Your task to perform on an android device: Open the stopwatch Image 0: 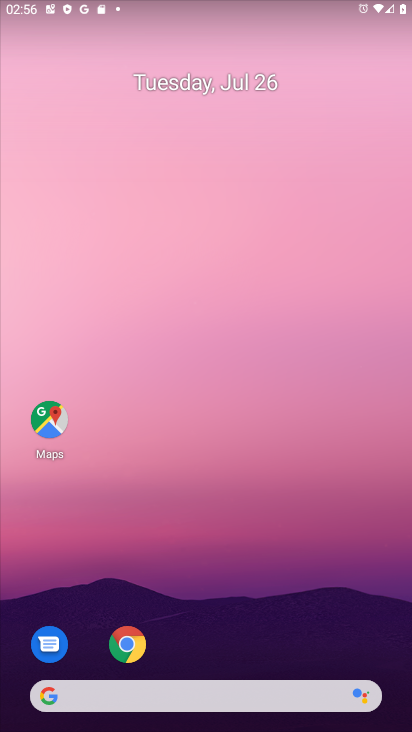
Step 0: drag from (172, 650) to (142, 110)
Your task to perform on an android device: Open the stopwatch Image 1: 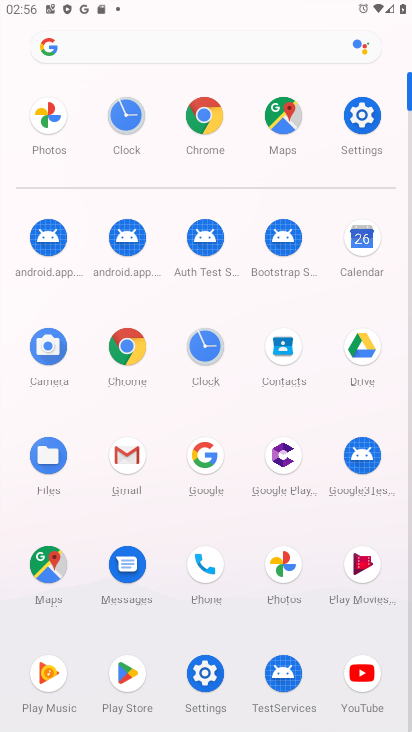
Step 1: click (208, 342)
Your task to perform on an android device: Open the stopwatch Image 2: 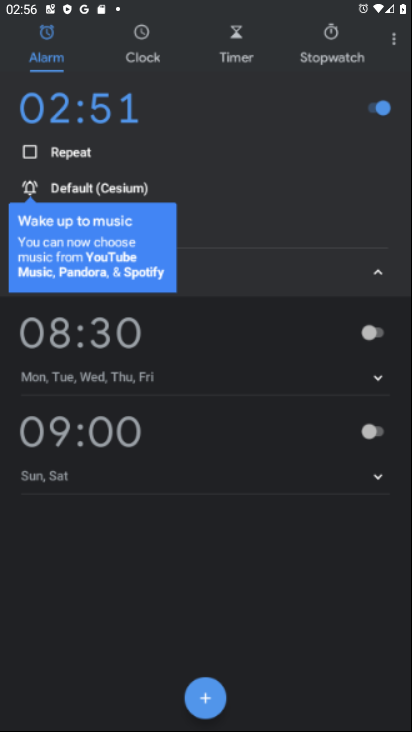
Step 2: click (320, 44)
Your task to perform on an android device: Open the stopwatch Image 3: 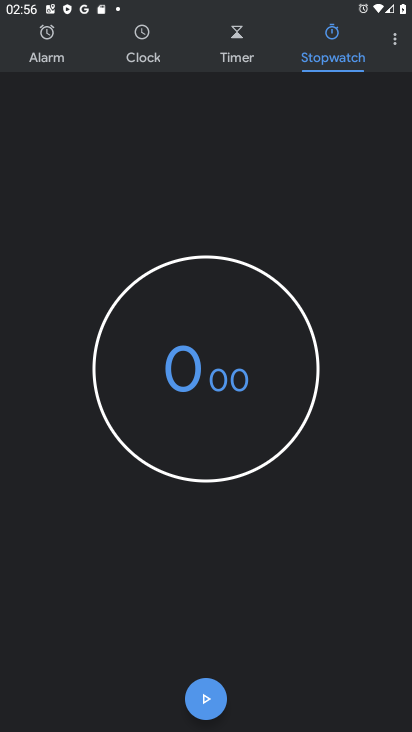
Step 3: task complete